Your task to perform on an android device: What's on the menu at Cheesecake Factory? Image 0: 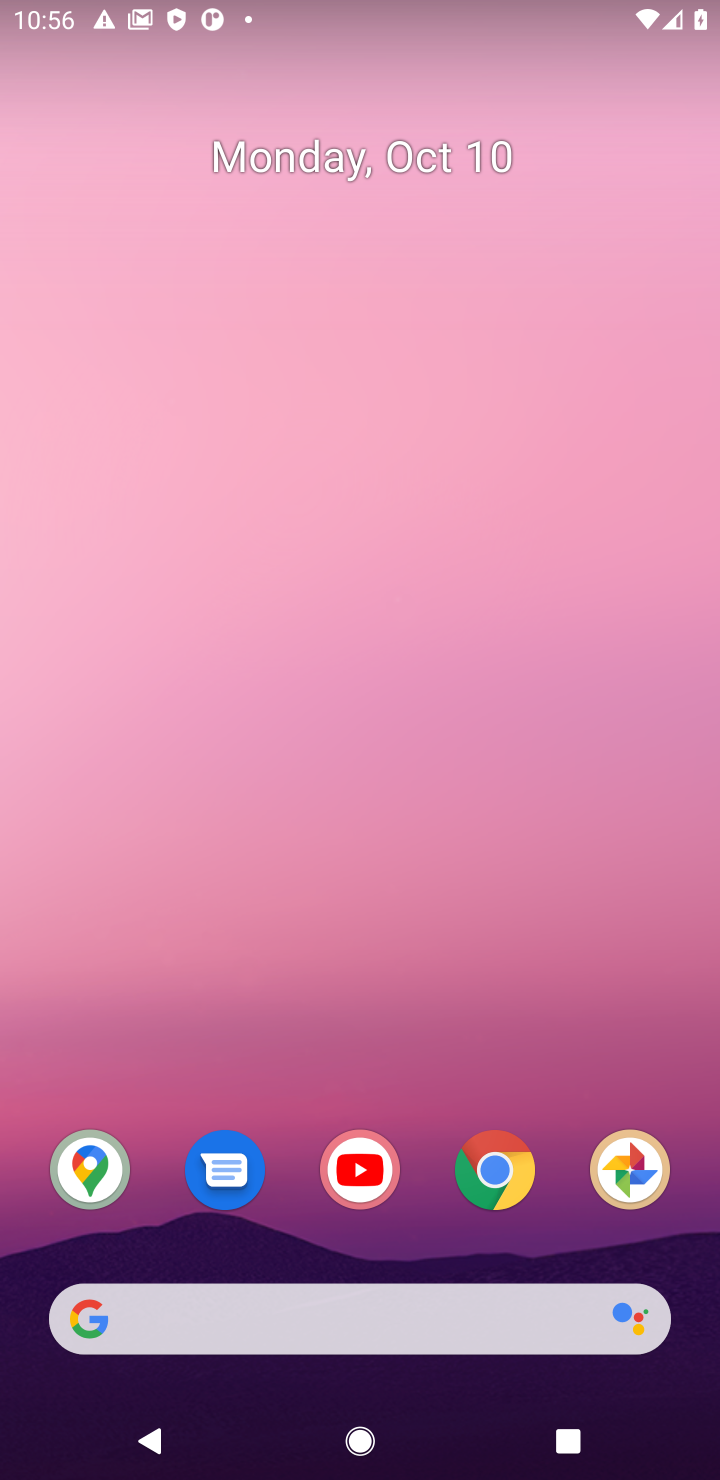
Step 0: click (499, 1166)
Your task to perform on an android device: What's on the menu at Cheesecake Factory? Image 1: 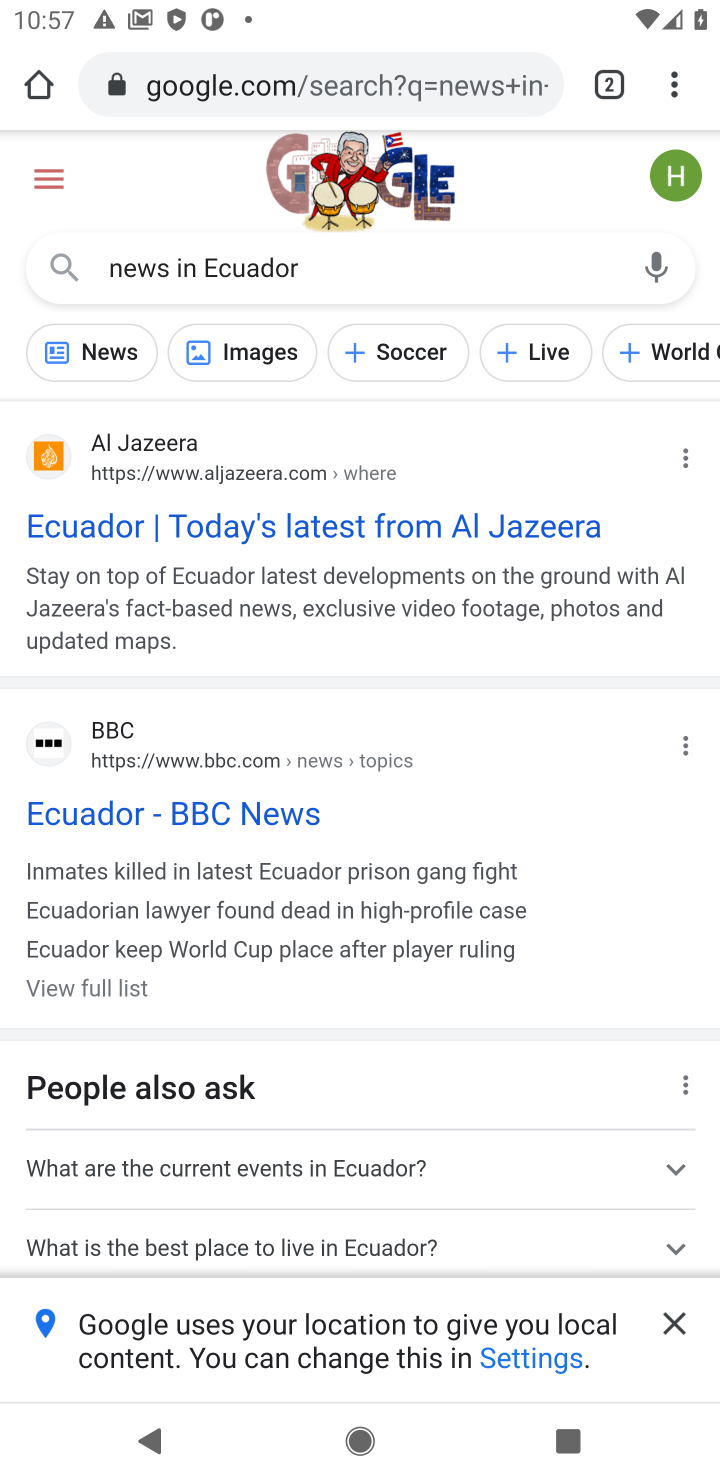
Step 1: click (427, 267)
Your task to perform on an android device: What's on the menu at Cheesecake Factory? Image 2: 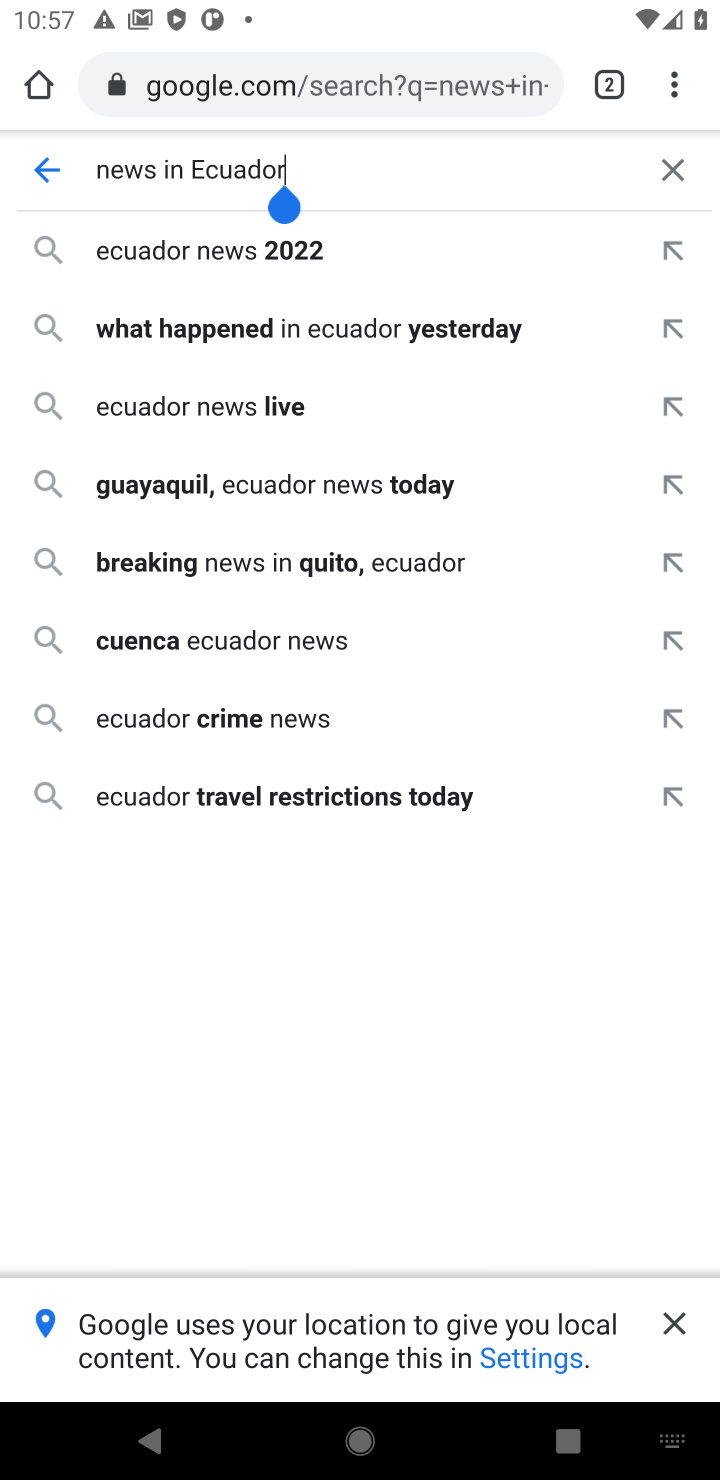
Step 2: click (677, 180)
Your task to perform on an android device: What's on the menu at Cheesecake Factory? Image 3: 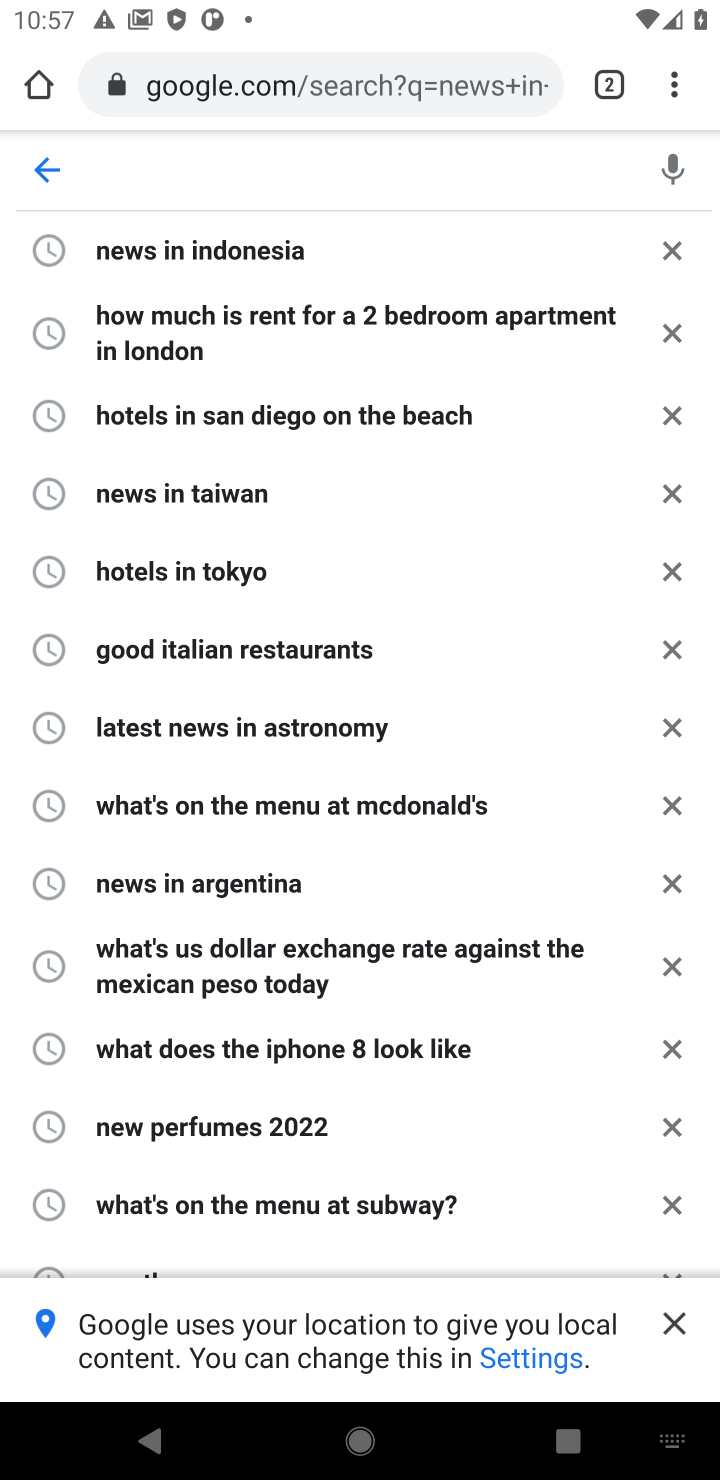
Step 3: type "What's on the menu at Cheesecake Factory?"
Your task to perform on an android device: What's on the menu at Cheesecake Factory? Image 4: 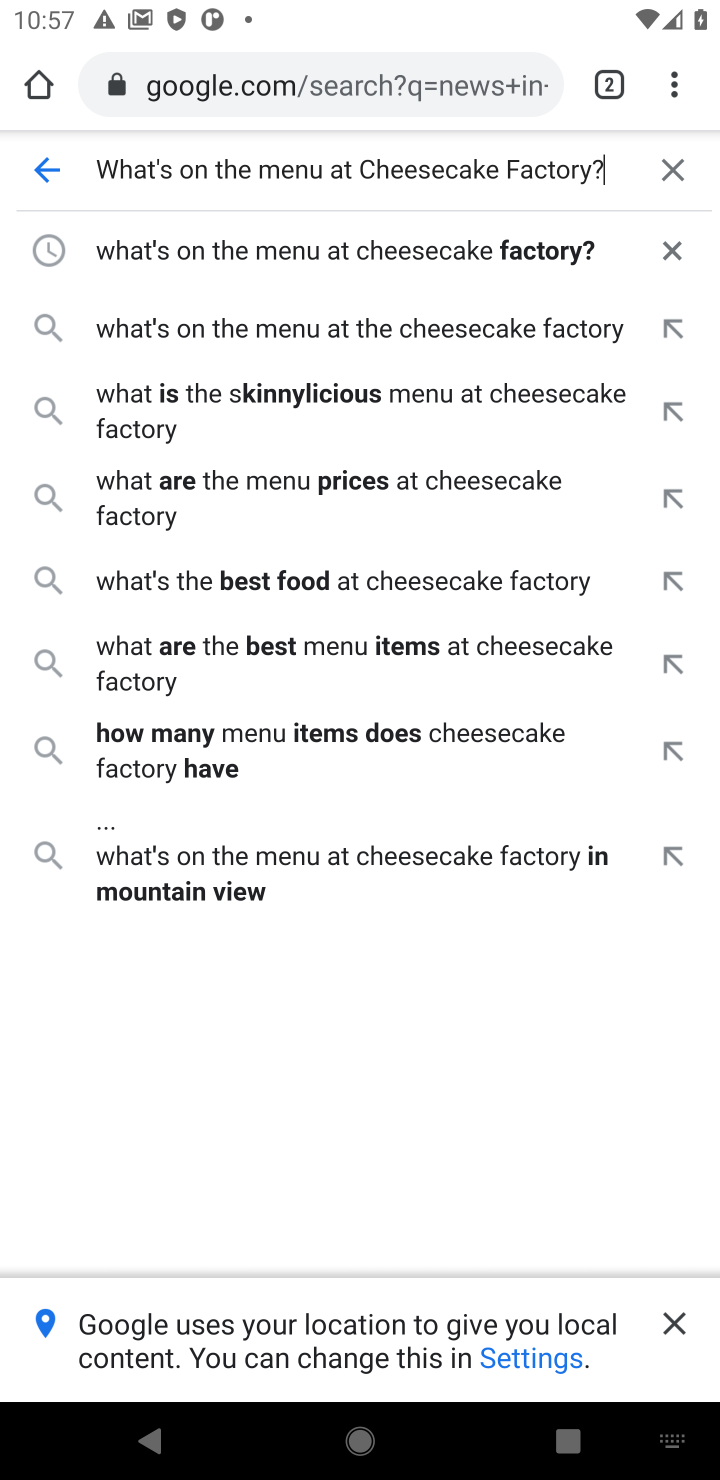
Step 4: click (472, 238)
Your task to perform on an android device: What's on the menu at Cheesecake Factory? Image 5: 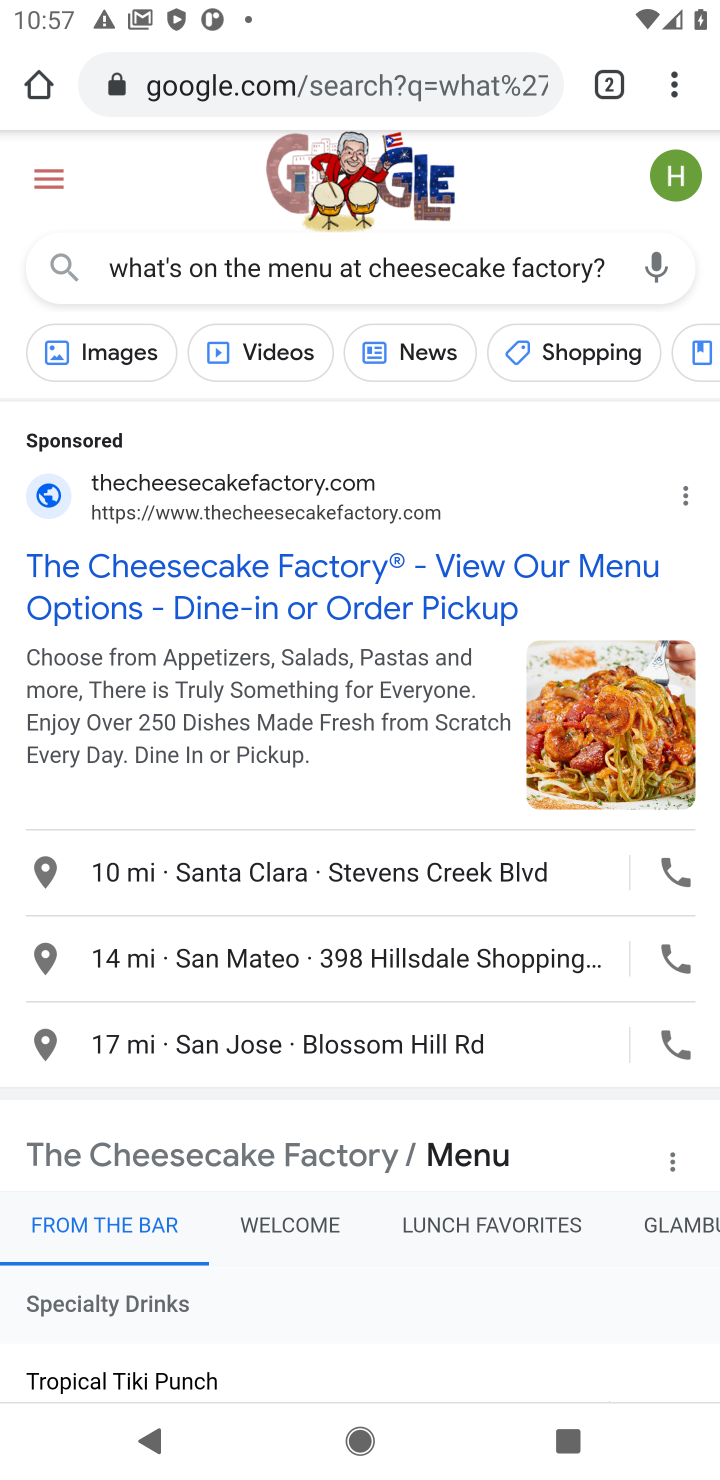
Step 5: click (376, 609)
Your task to perform on an android device: What's on the menu at Cheesecake Factory? Image 6: 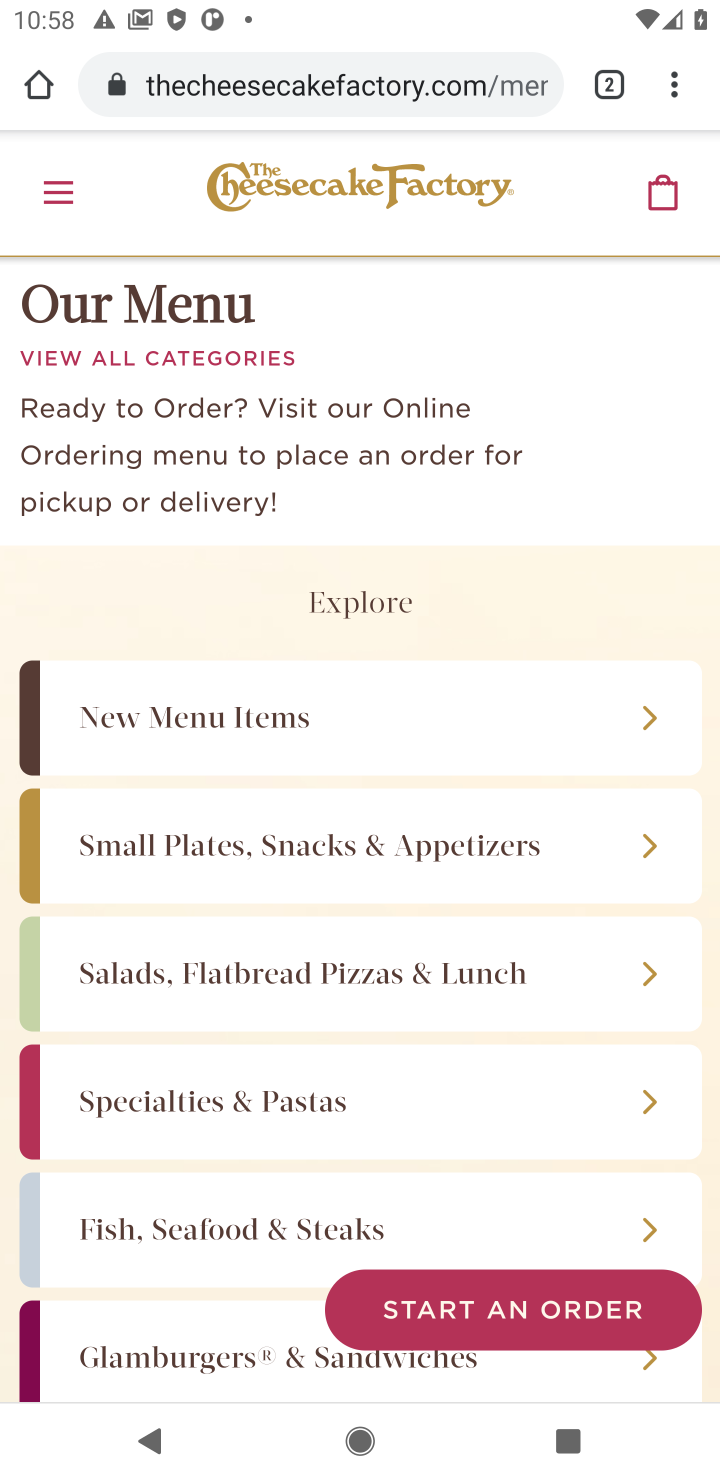
Step 6: task complete